Your task to perform on an android device: turn on bluetooth scan Image 0: 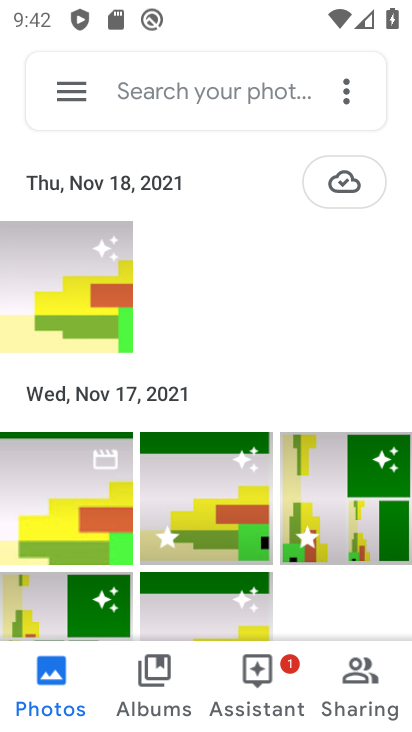
Step 0: press home button
Your task to perform on an android device: turn on bluetooth scan Image 1: 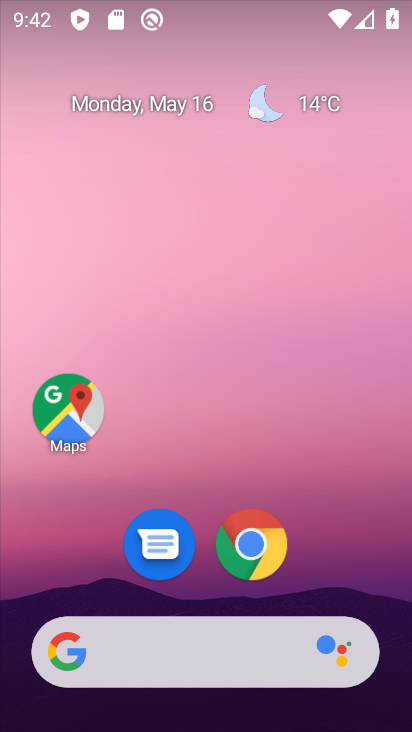
Step 1: drag from (333, 536) to (350, 142)
Your task to perform on an android device: turn on bluetooth scan Image 2: 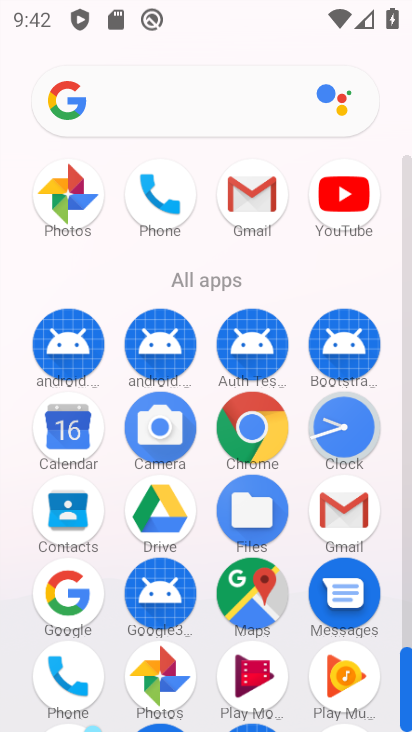
Step 2: drag from (290, 650) to (305, 260)
Your task to perform on an android device: turn on bluetooth scan Image 3: 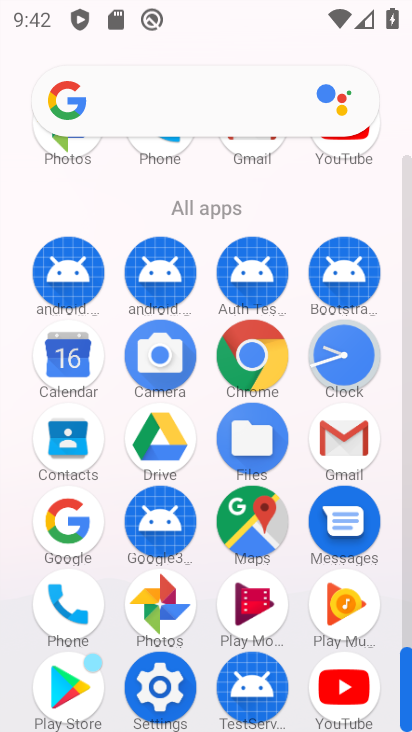
Step 3: click (177, 694)
Your task to perform on an android device: turn on bluetooth scan Image 4: 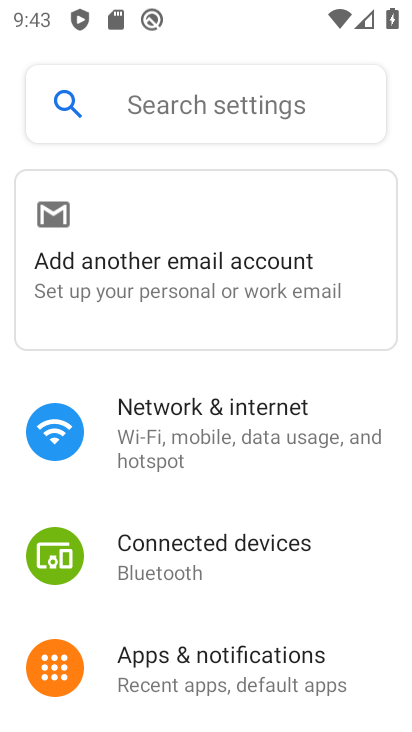
Step 4: drag from (177, 694) to (248, 291)
Your task to perform on an android device: turn on bluetooth scan Image 5: 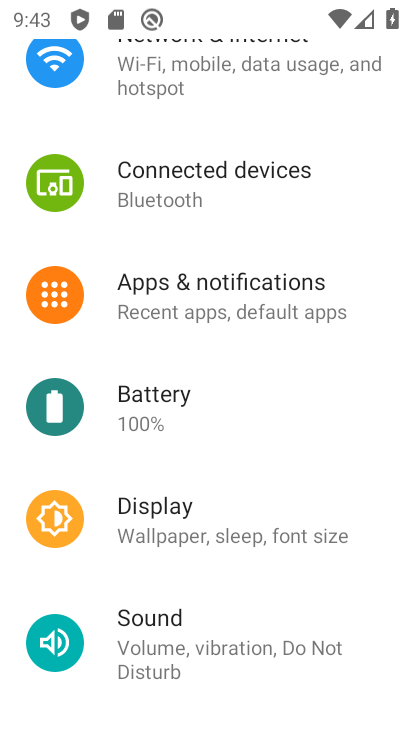
Step 5: drag from (203, 657) to (231, 354)
Your task to perform on an android device: turn on bluetooth scan Image 6: 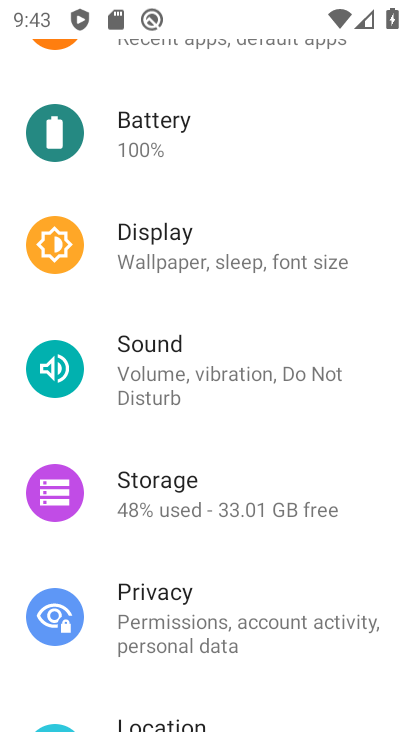
Step 6: drag from (222, 689) to (247, 497)
Your task to perform on an android device: turn on bluetooth scan Image 7: 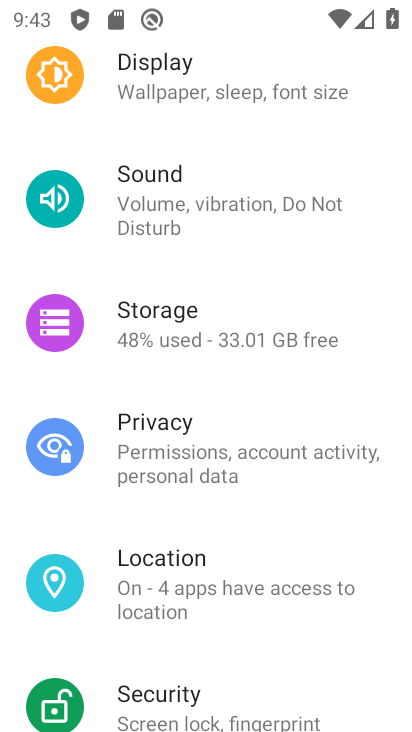
Step 7: click (212, 596)
Your task to perform on an android device: turn on bluetooth scan Image 8: 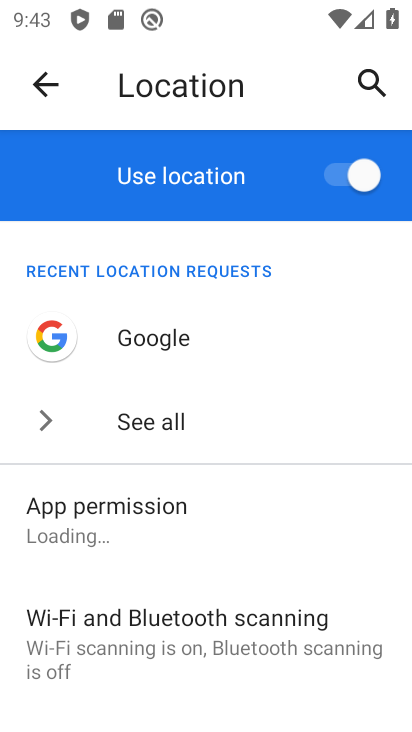
Step 8: click (212, 642)
Your task to perform on an android device: turn on bluetooth scan Image 9: 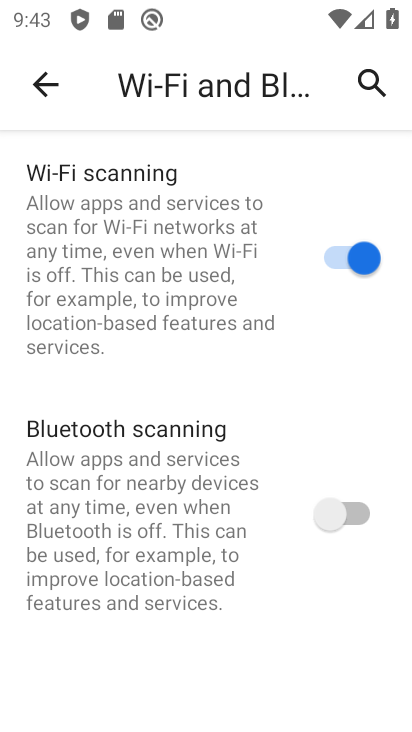
Step 9: click (339, 511)
Your task to perform on an android device: turn on bluetooth scan Image 10: 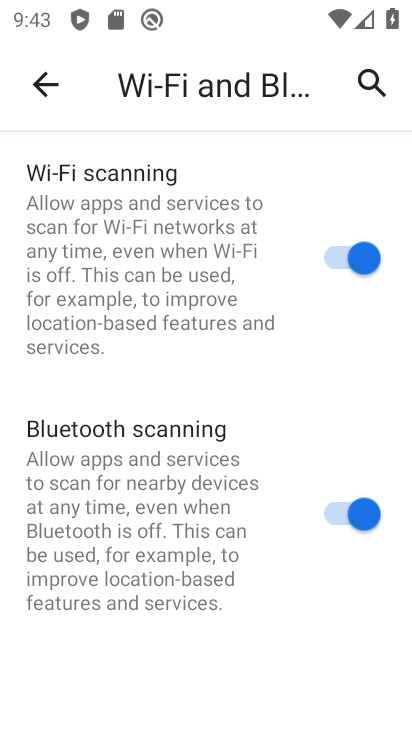
Step 10: task complete